Your task to perform on an android device: clear all cookies in the chrome app Image 0: 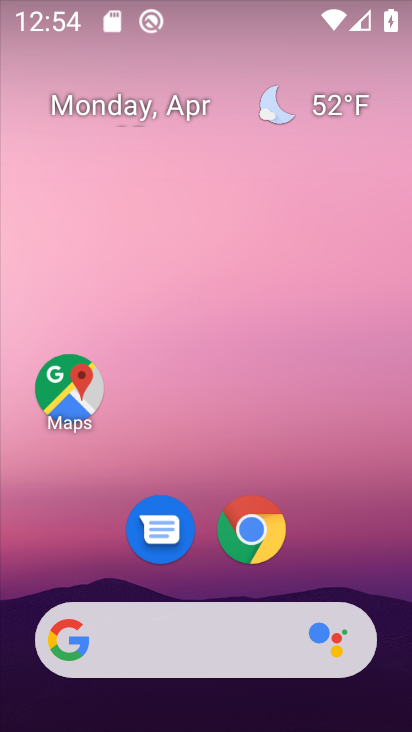
Step 0: click (329, 102)
Your task to perform on an android device: clear all cookies in the chrome app Image 1: 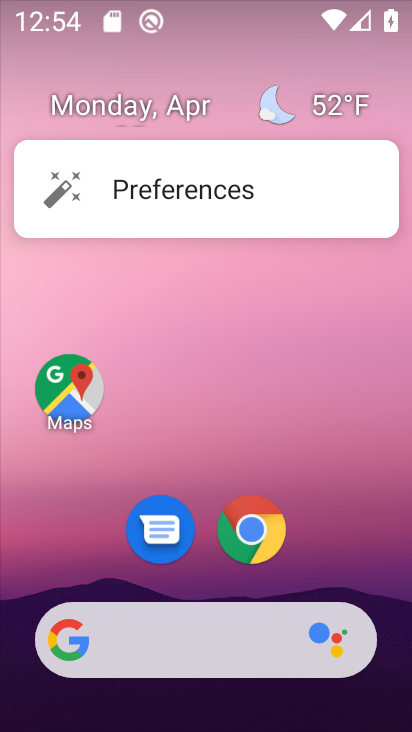
Step 1: press home button
Your task to perform on an android device: clear all cookies in the chrome app Image 2: 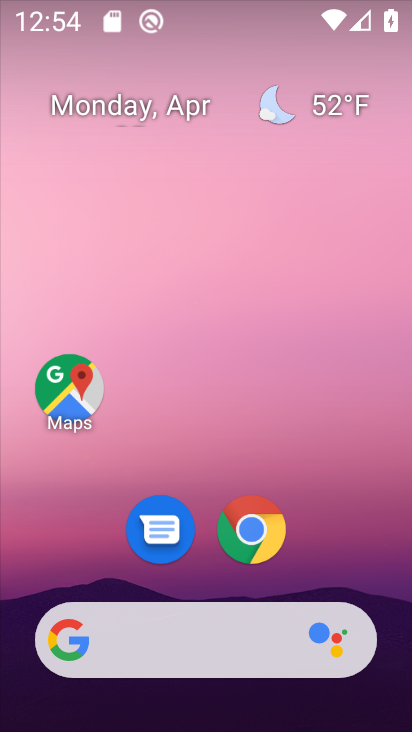
Step 2: click (252, 531)
Your task to perform on an android device: clear all cookies in the chrome app Image 3: 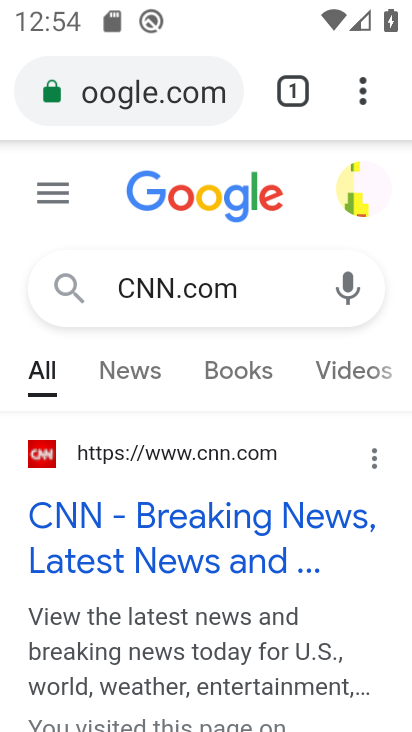
Step 3: click (360, 78)
Your task to perform on an android device: clear all cookies in the chrome app Image 4: 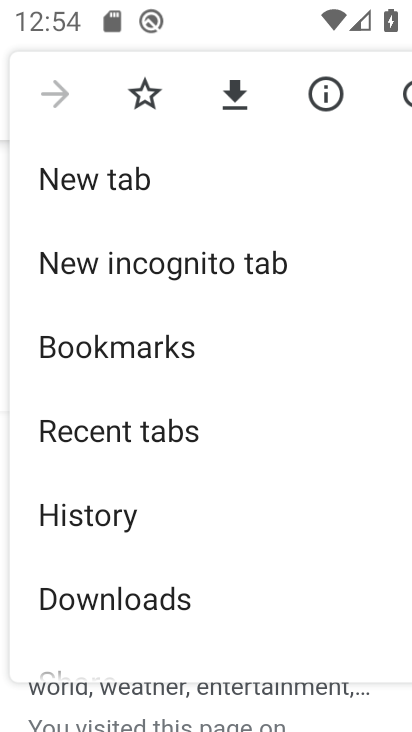
Step 4: drag from (318, 457) to (321, 302)
Your task to perform on an android device: clear all cookies in the chrome app Image 5: 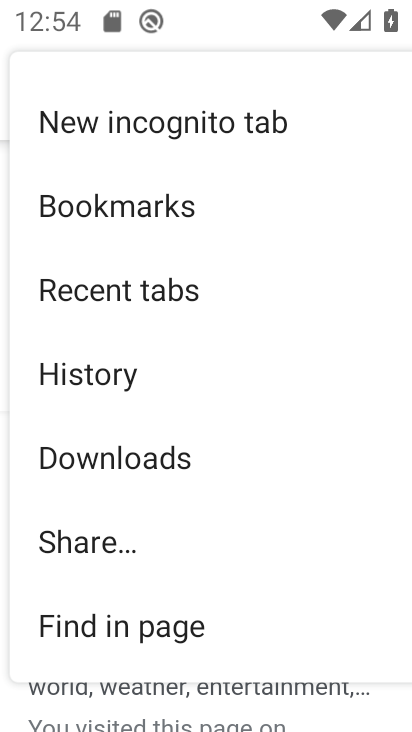
Step 5: drag from (288, 317) to (288, 169)
Your task to perform on an android device: clear all cookies in the chrome app Image 6: 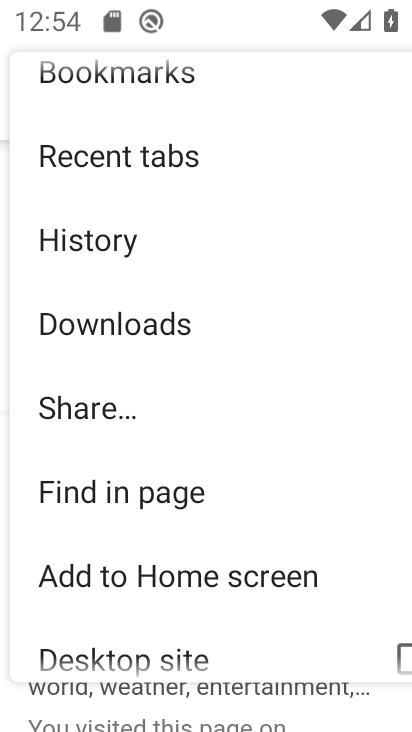
Step 6: drag from (293, 503) to (285, 139)
Your task to perform on an android device: clear all cookies in the chrome app Image 7: 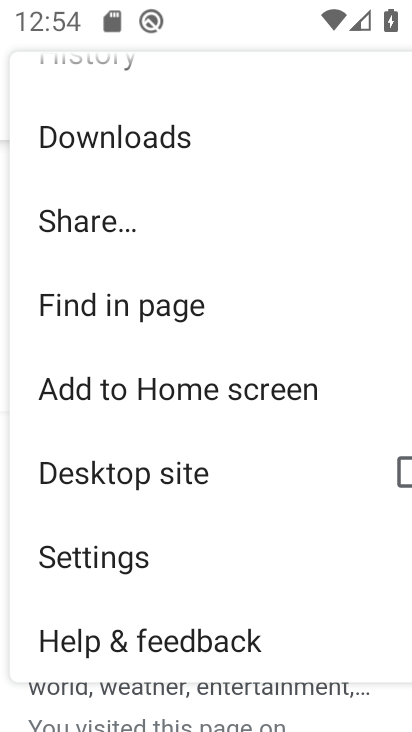
Step 7: click (87, 562)
Your task to perform on an android device: clear all cookies in the chrome app Image 8: 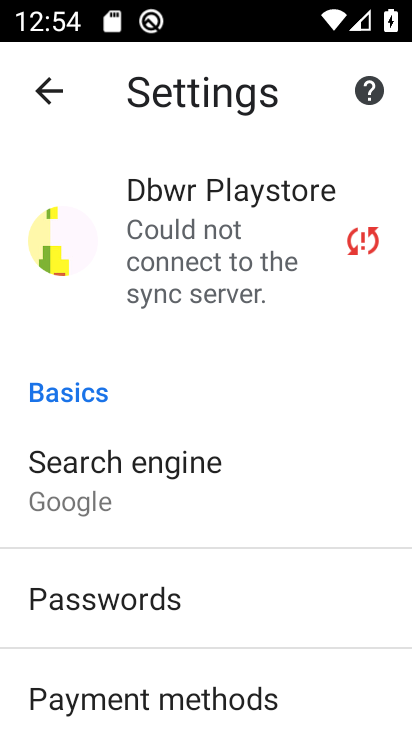
Step 8: drag from (317, 659) to (331, 180)
Your task to perform on an android device: clear all cookies in the chrome app Image 9: 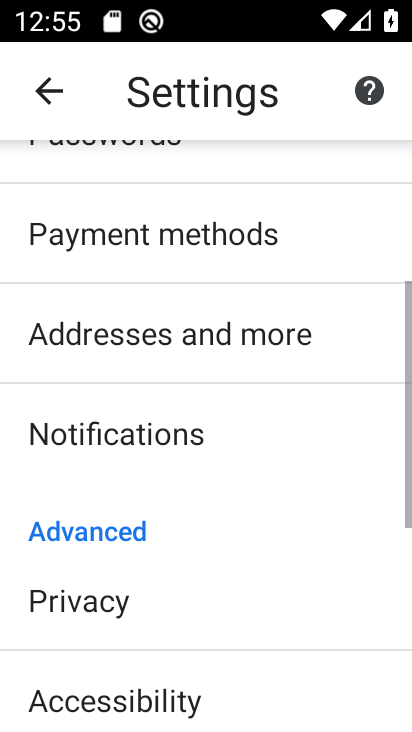
Step 9: drag from (291, 603) to (295, 226)
Your task to perform on an android device: clear all cookies in the chrome app Image 10: 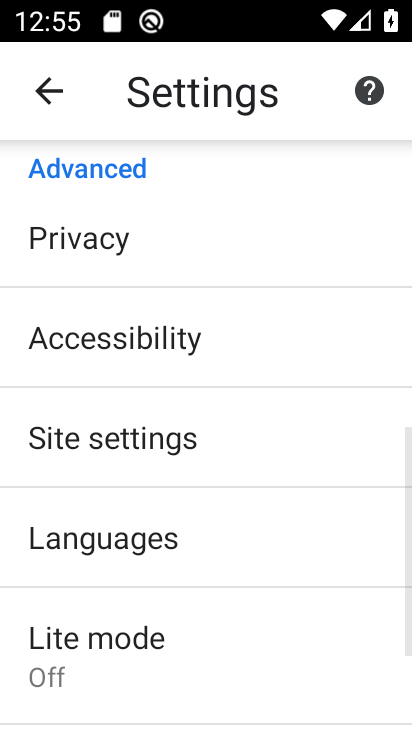
Step 10: drag from (273, 625) to (272, 249)
Your task to perform on an android device: clear all cookies in the chrome app Image 11: 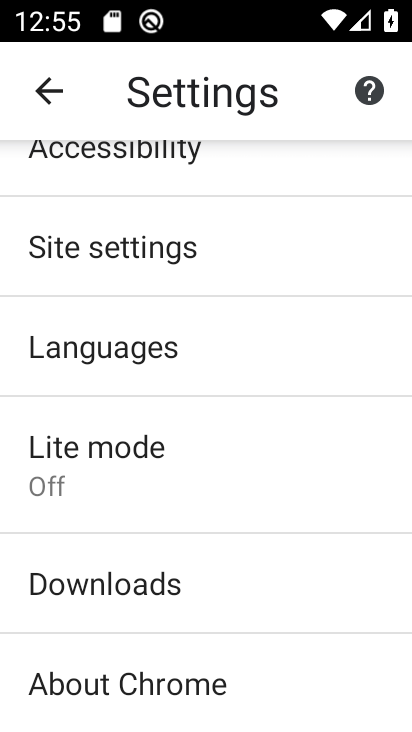
Step 11: drag from (315, 675) to (293, 266)
Your task to perform on an android device: clear all cookies in the chrome app Image 12: 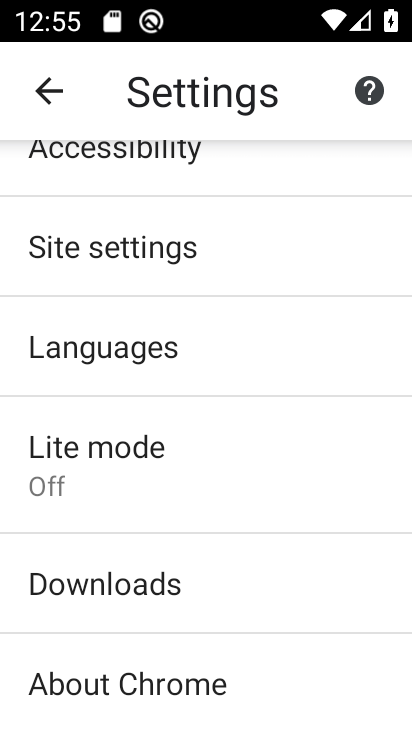
Step 12: drag from (281, 648) to (273, 261)
Your task to perform on an android device: clear all cookies in the chrome app Image 13: 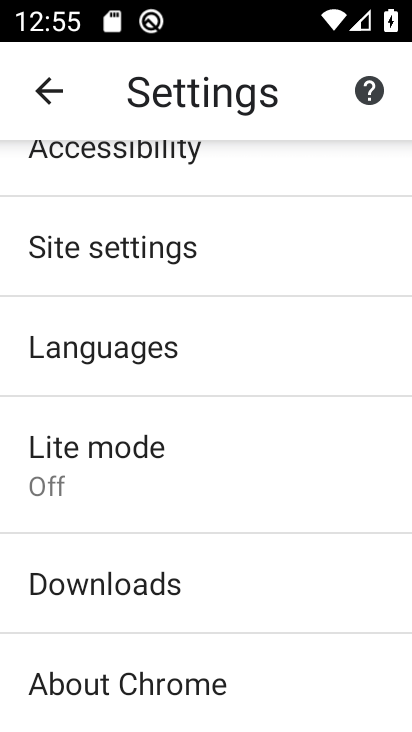
Step 13: drag from (344, 322) to (302, 730)
Your task to perform on an android device: clear all cookies in the chrome app Image 14: 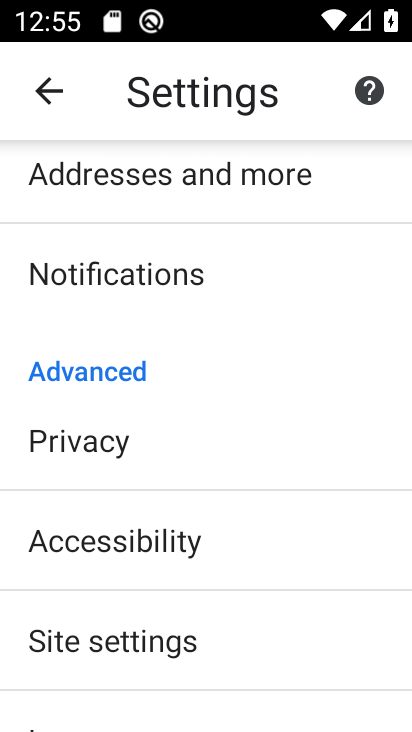
Step 14: drag from (320, 541) to (313, 640)
Your task to perform on an android device: clear all cookies in the chrome app Image 15: 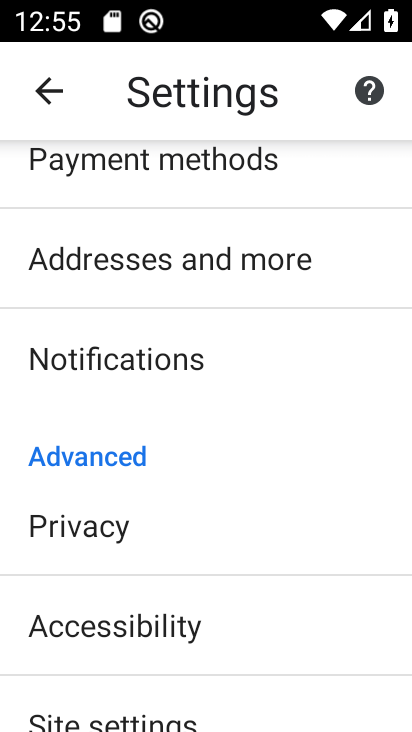
Step 15: click (44, 75)
Your task to perform on an android device: clear all cookies in the chrome app Image 16: 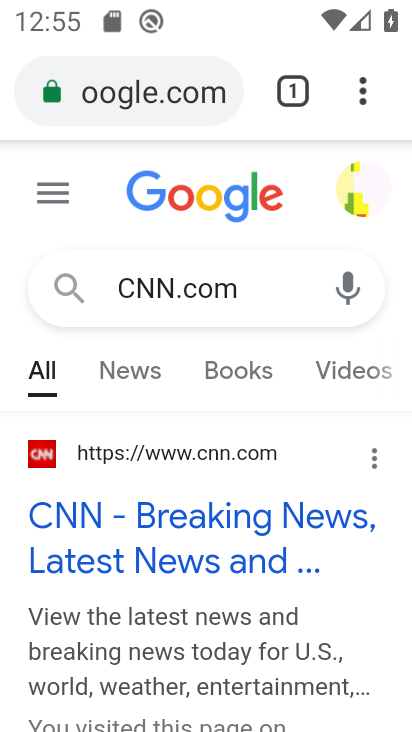
Step 16: click (360, 82)
Your task to perform on an android device: clear all cookies in the chrome app Image 17: 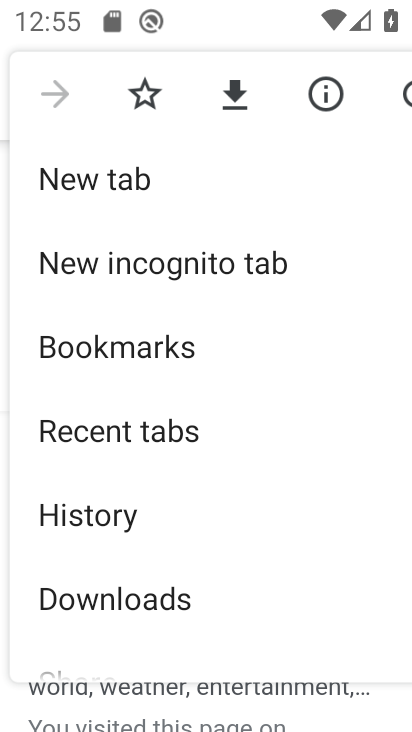
Step 17: click (68, 512)
Your task to perform on an android device: clear all cookies in the chrome app Image 18: 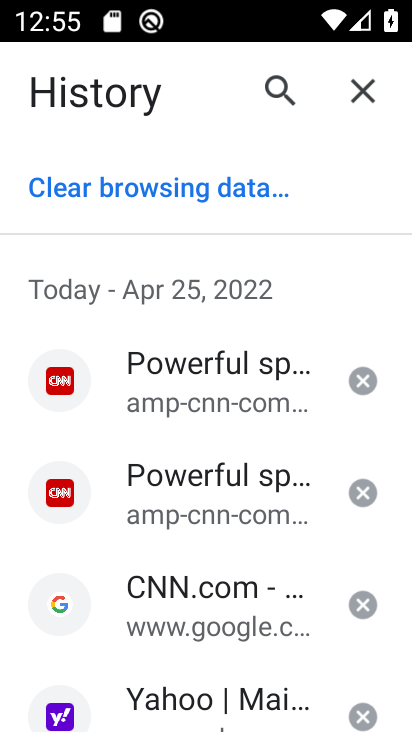
Step 18: click (168, 186)
Your task to perform on an android device: clear all cookies in the chrome app Image 19: 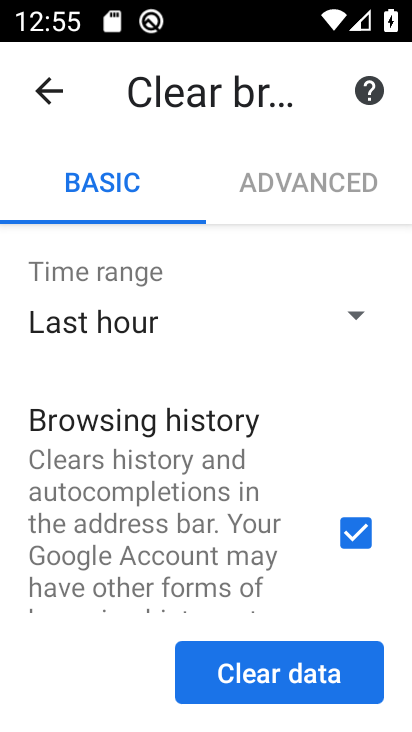
Step 19: click (256, 687)
Your task to perform on an android device: clear all cookies in the chrome app Image 20: 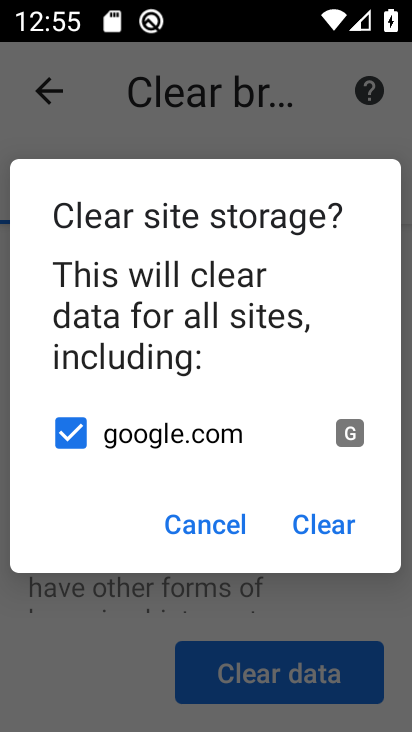
Step 20: click (317, 530)
Your task to perform on an android device: clear all cookies in the chrome app Image 21: 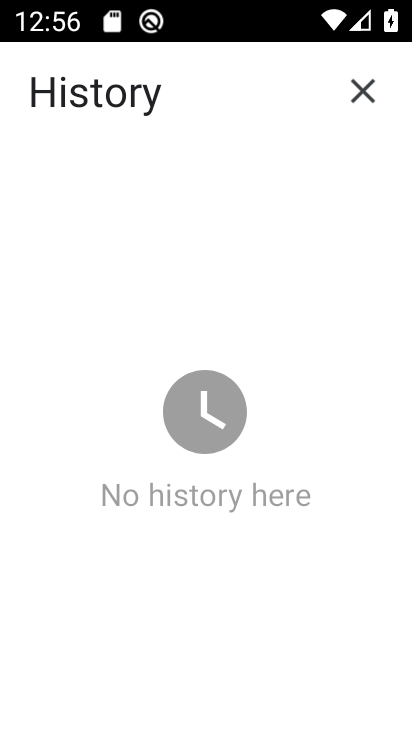
Step 21: task complete